Your task to perform on an android device: Find coffee shops on Maps Image 0: 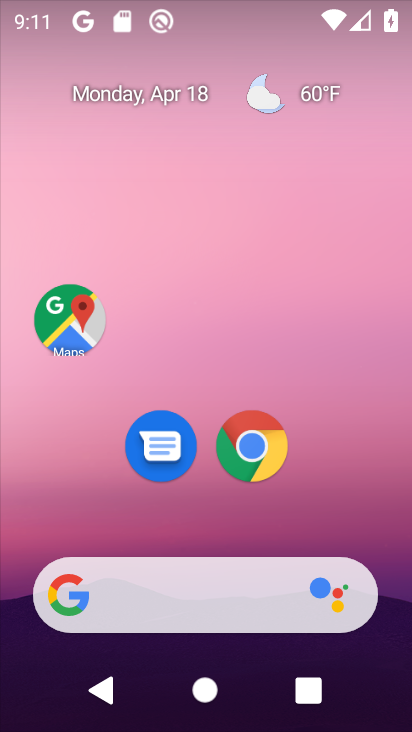
Step 0: drag from (359, 523) to (337, 109)
Your task to perform on an android device: Find coffee shops on Maps Image 1: 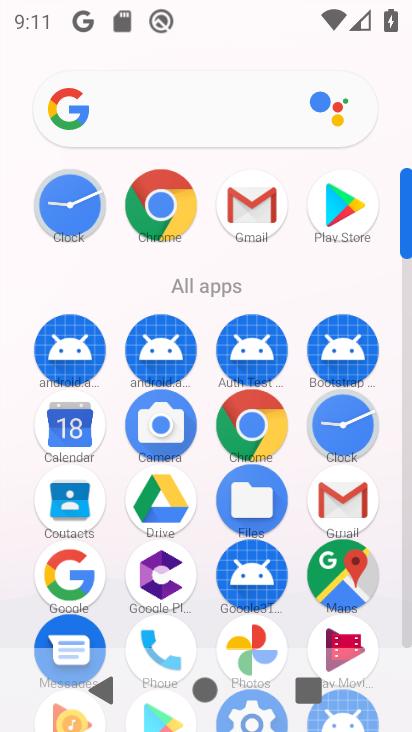
Step 1: drag from (401, 583) to (384, 306)
Your task to perform on an android device: Find coffee shops on Maps Image 2: 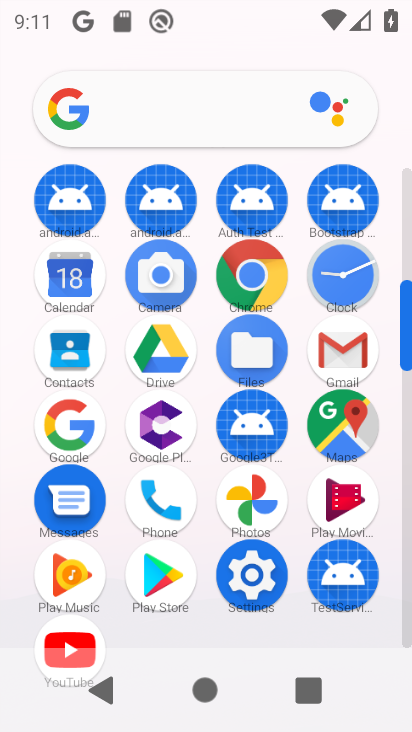
Step 2: click (353, 436)
Your task to perform on an android device: Find coffee shops on Maps Image 3: 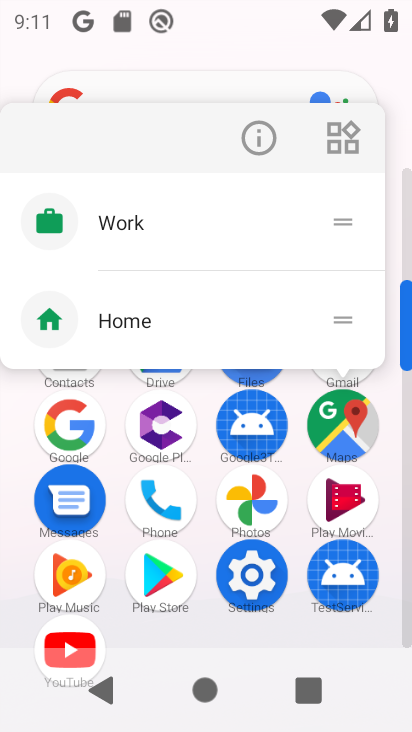
Step 3: click (353, 436)
Your task to perform on an android device: Find coffee shops on Maps Image 4: 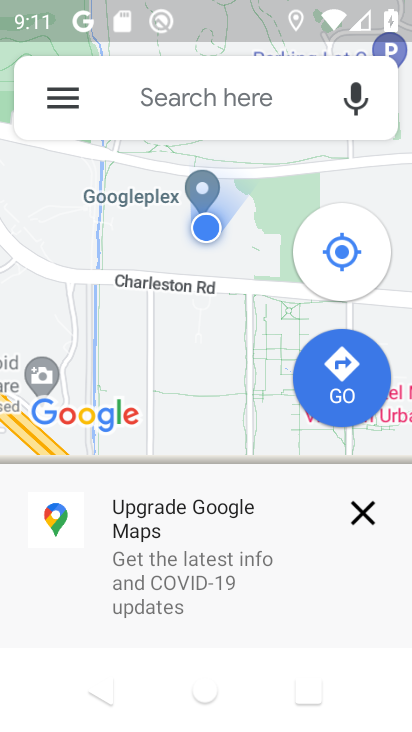
Step 4: click (220, 99)
Your task to perform on an android device: Find coffee shops on Maps Image 5: 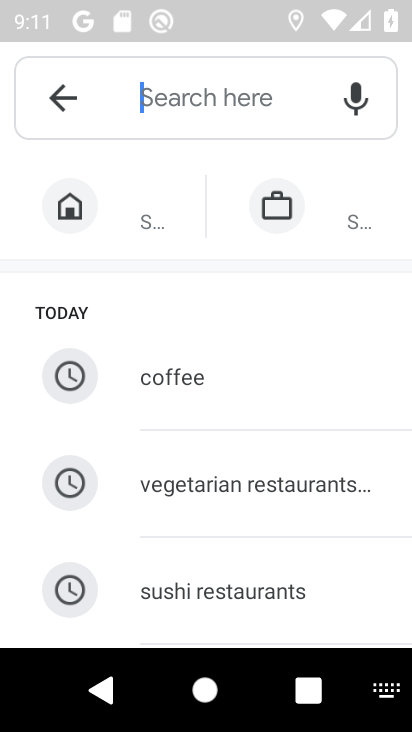
Step 5: type "coffee"
Your task to perform on an android device: Find coffee shops on Maps Image 6: 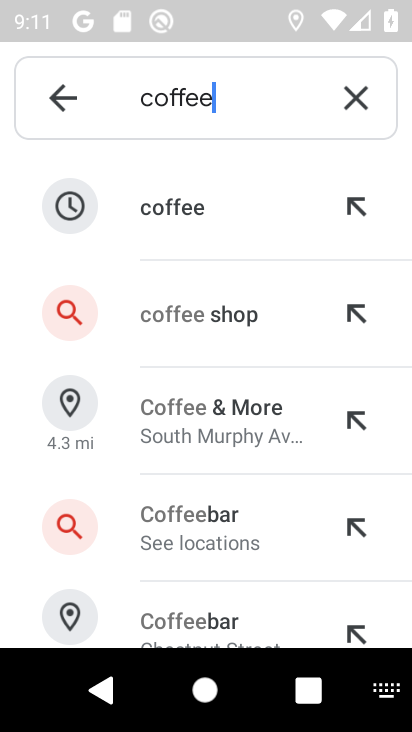
Step 6: click (177, 213)
Your task to perform on an android device: Find coffee shops on Maps Image 7: 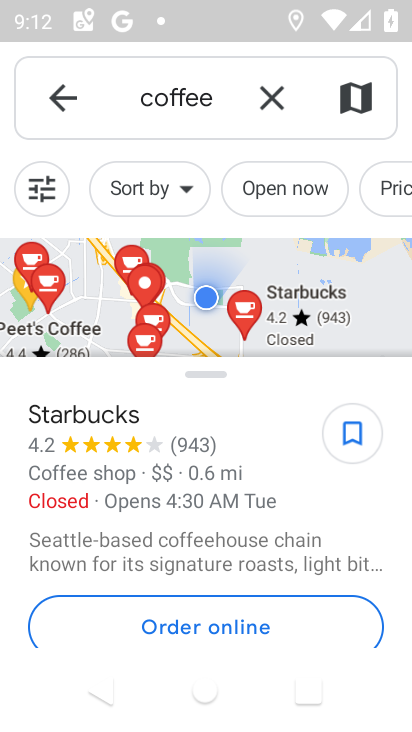
Step 7: task complete